Your task to perform on an android device: turn on airplane mode Image 0: 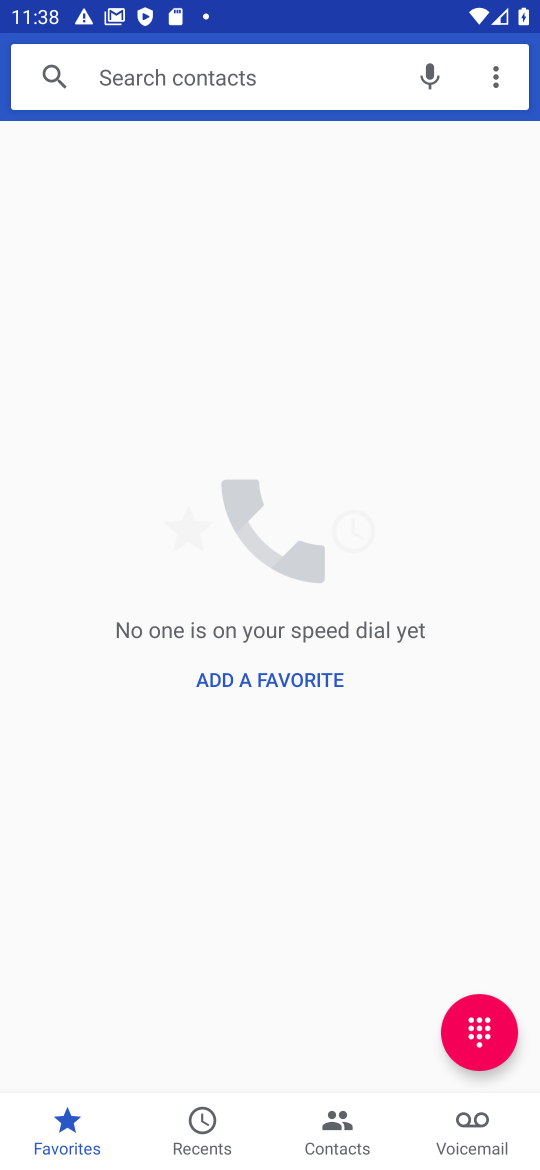
Step 0: press home button
Your task to perform on an android device: turn on airplane mode Image 1: 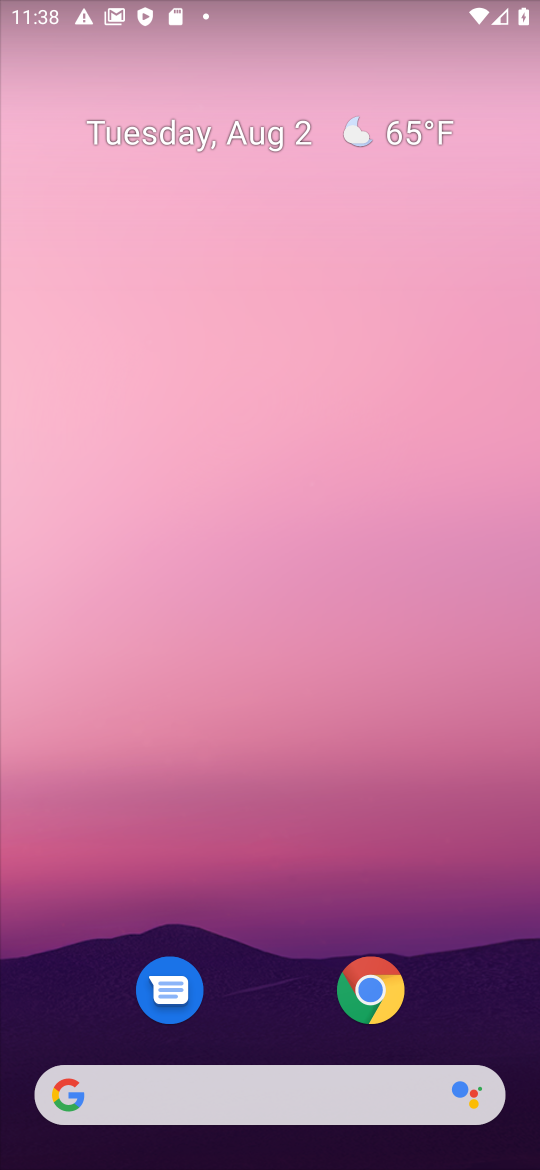
Step 1: drag from (235, 933) to (328, 141)
Your task to perform on an android device: turn on airplane mode Image 2: 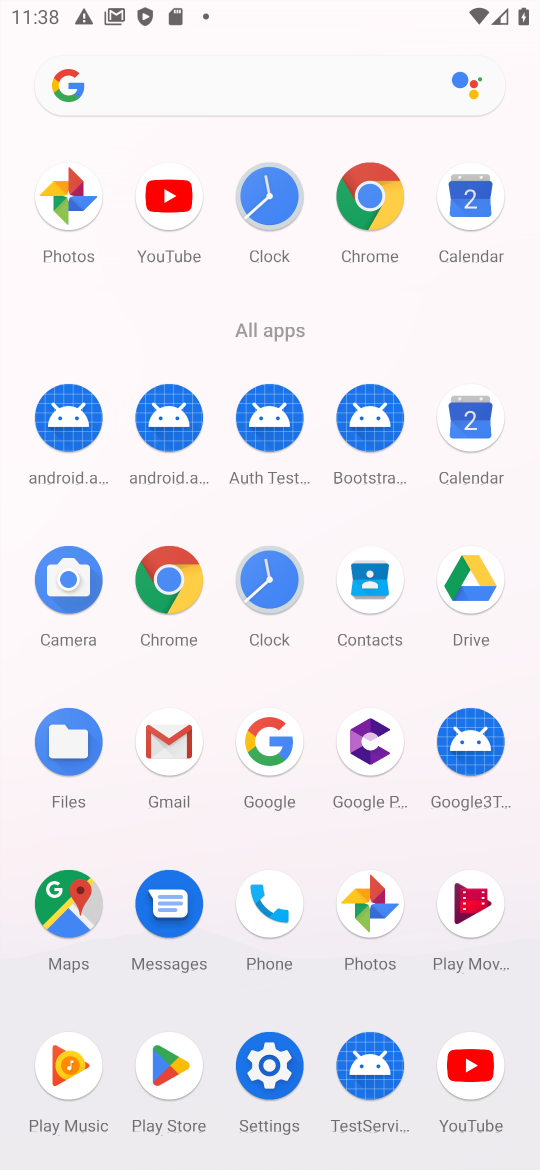
Step 2: click (263, 1059)
Your task to perform on an android device: turn on airplane mode Image 3: 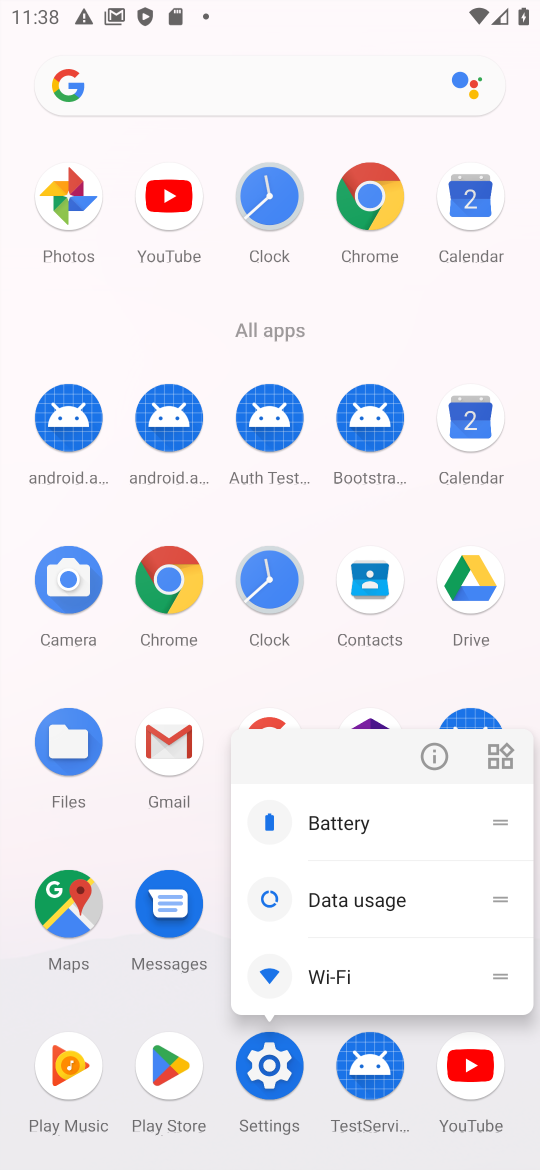
Step 3: click (272, 1092)
Your task to perform on an android device: turn on airplane mode Image 4: 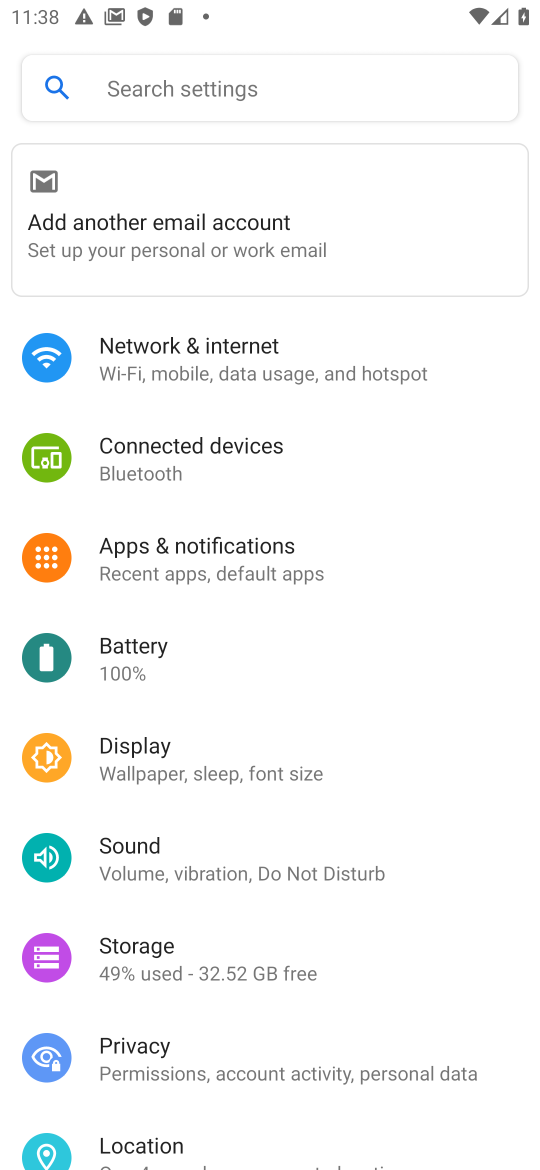
Step 4: click (225, 206)
Your task to perform on an android device: turn on airplane mode Image 5: 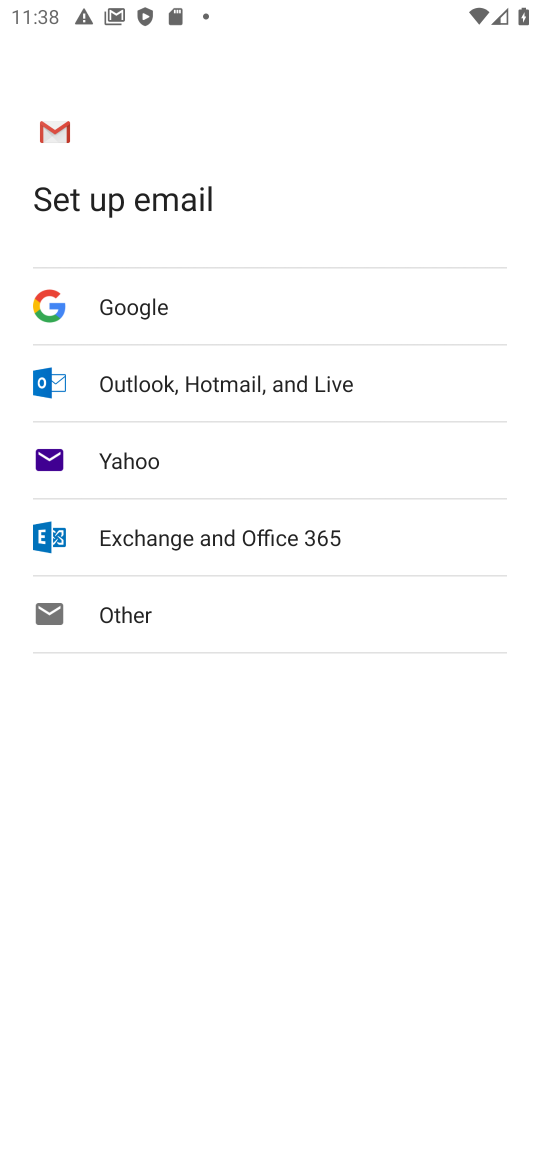
Step 5: press back button
Your task to perform on an android device: turn on airplane mode Image 6: 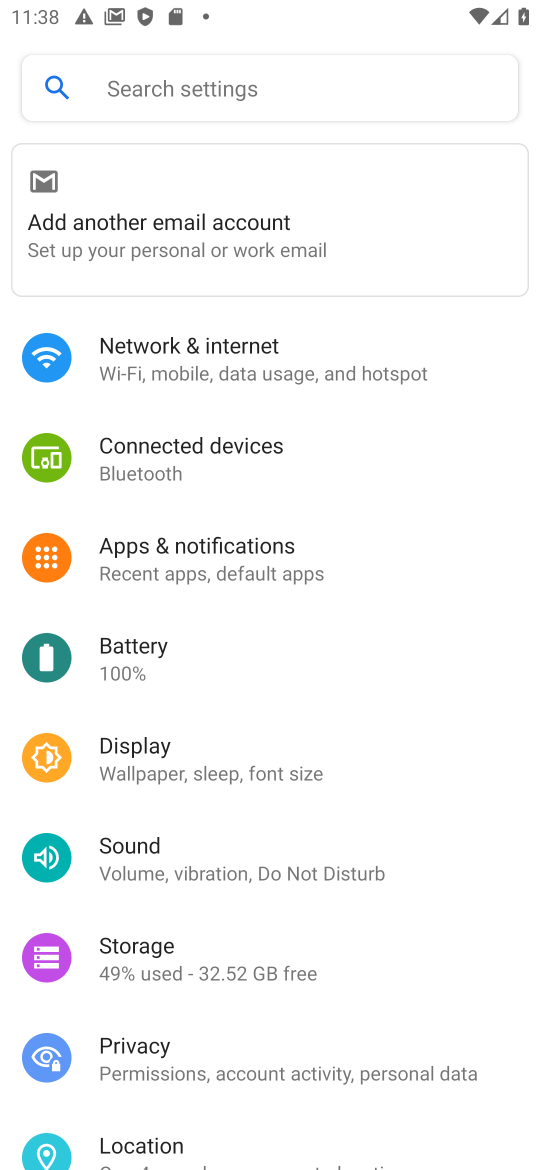
Step 6: click (289, 358)
Your task to perform on an android device: turn on airplane mode Image 7: 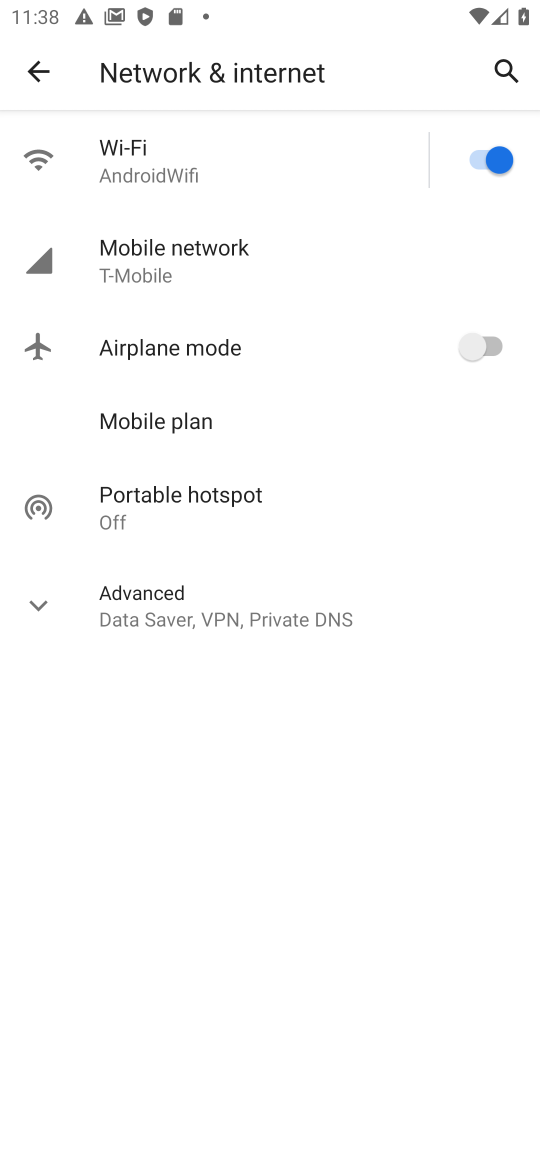
Step 7: click (512, 338)
Your task to perform on an android device: turn on airplane mode Image 8: 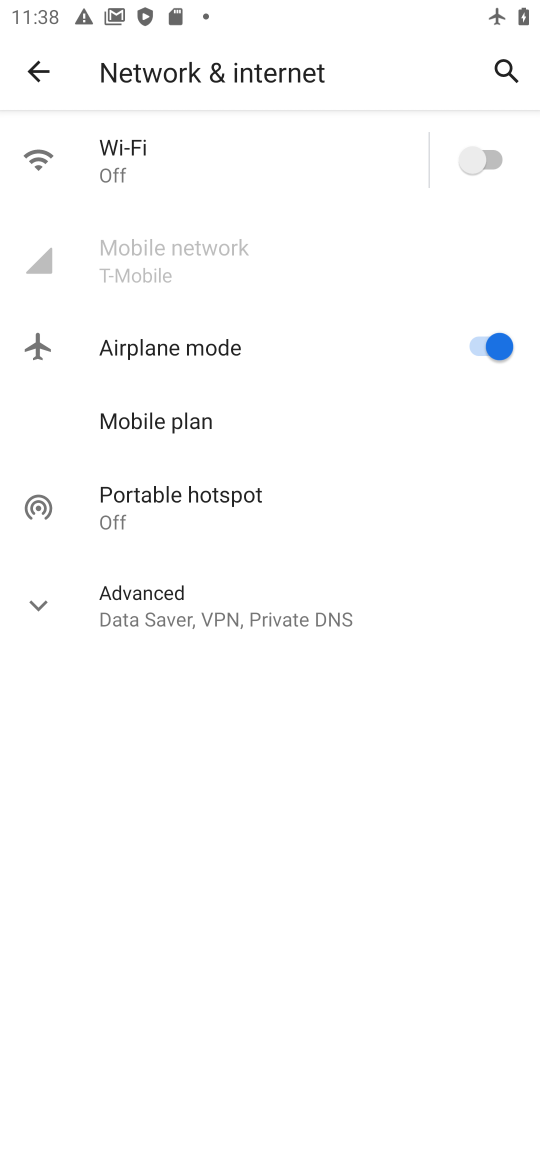
Step 8: task complete